Your task to perform on an android device: turn on airplane mode Image 0: 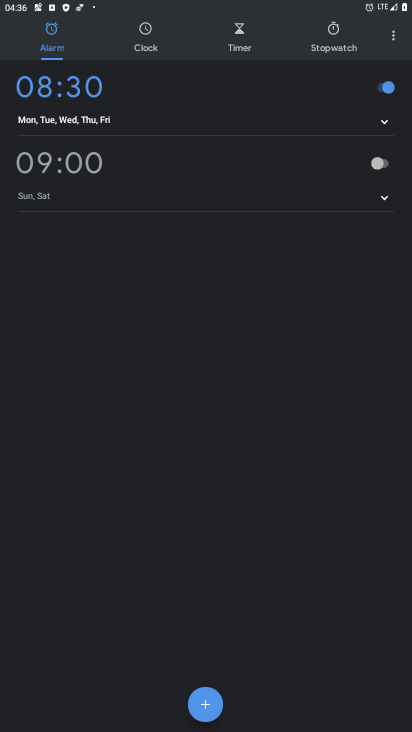
Step 0: task complete